Your task to perform on an android device: turn on bluetooth scan Image 0: 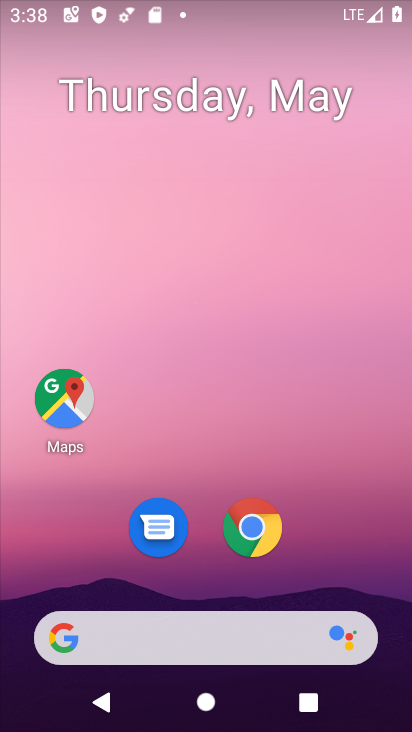
Step 0: drag from (393, 603) to (315, 68)
Your task to perform on an android device: turn on bluetooth scan Image 1: 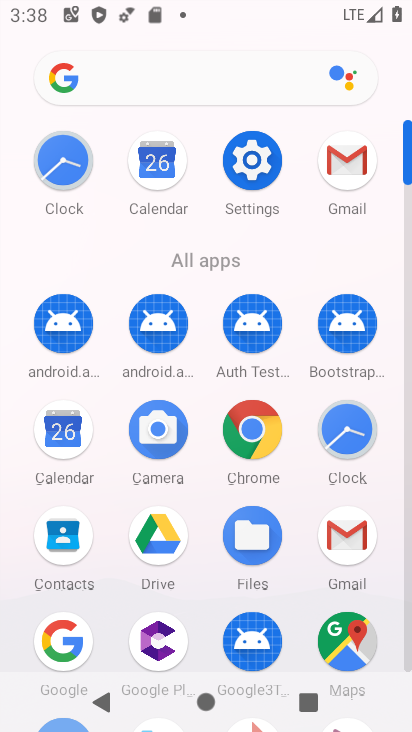
Step 1: click (408, 657)
Your task to perform on an android device: turn on bluetooth scan Image 2: 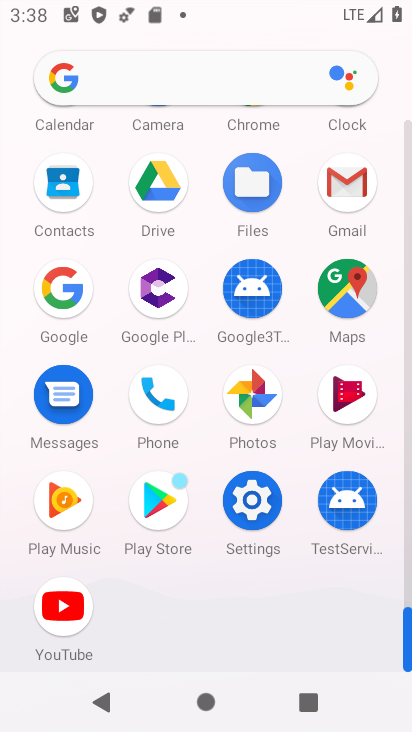
Step 2: click (250, 499)
Your task to perform on an android device: turn on bluetooth scan Image 3: 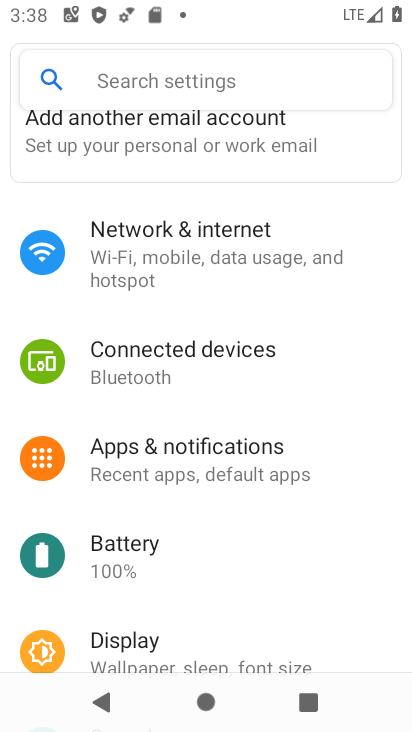
Step 3: drag from (317, 602) to (298, 91)
Your task to perform on an android device: turn on bluetooth scan Image 4: 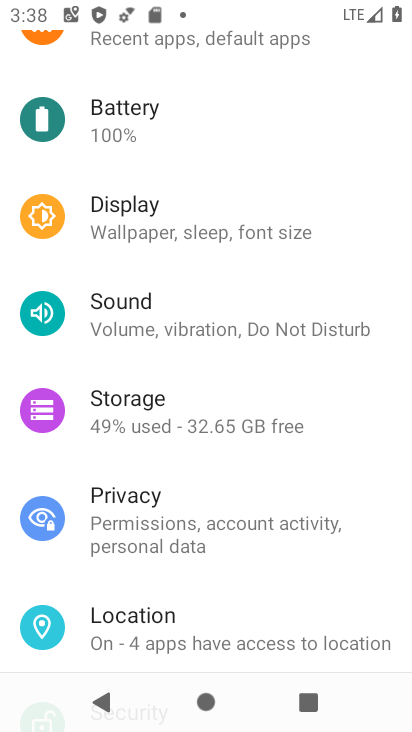
Step 4: click (178, 620)
Your task to perform on an android device: turn on bluetooth scan Image 5: 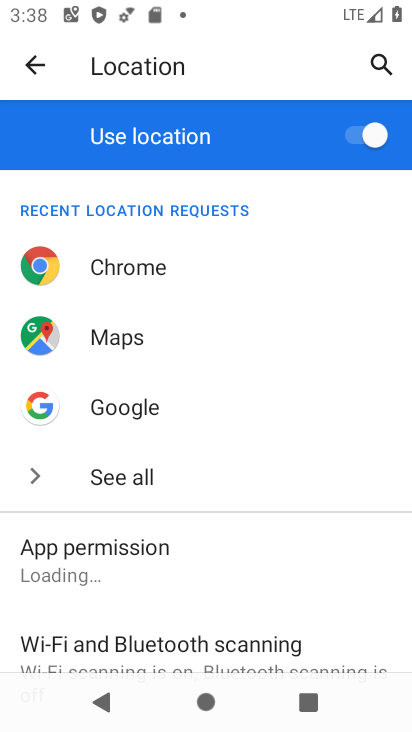
Step 5: drag from (296, 622) to (234, 150)
Your task to perform on an android device: turn on bluetooth scan Image 6: 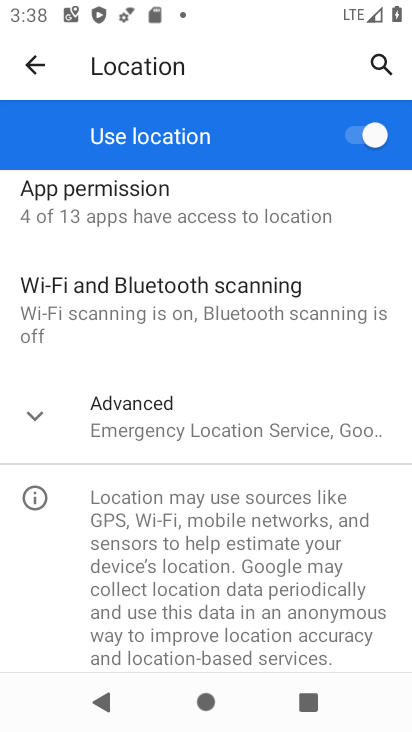
Step 6: click (125, 312)
Your task to perform on an android device: turn on bluetooth scan Image 7: 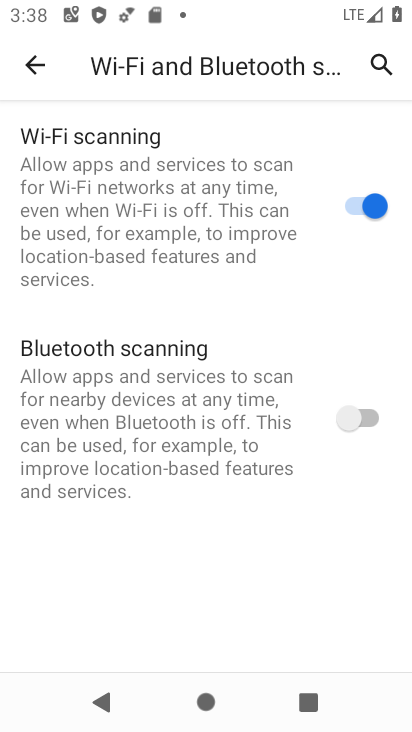
Step 7: click (371, 417)
Your task to perform on an android device: turn on bluetooth scan Image 8: 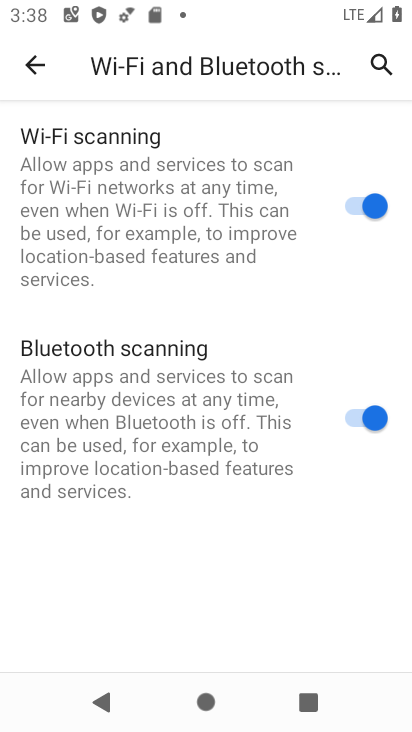
Step 8: task complete